Your task to perform on an android device: change the clock style Image 0: 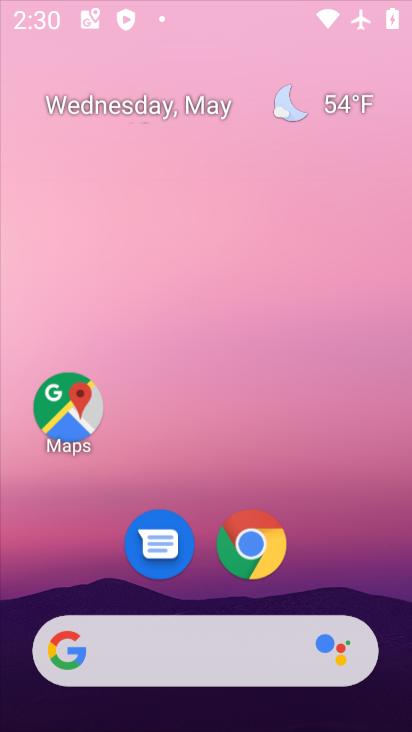
Step 0: drag from (398, 98) to (299, 291)
Your task to perform on an android device: change the clock style Image 1: 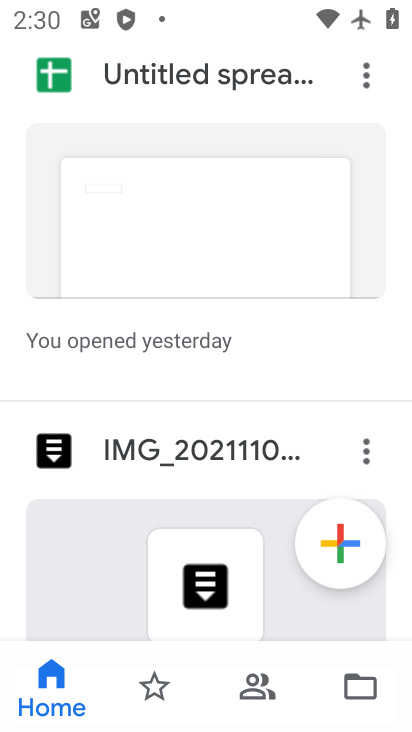
Step 1: press home button
Your task to perform on an android device: change the clock style Image 2: 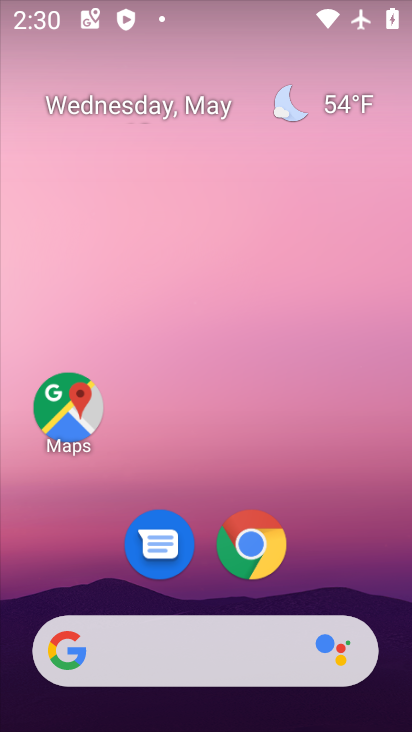
Step 2: drag from (323, 543) to (315, 103)
Your task to perform on an android device: change the clock style Image 3: 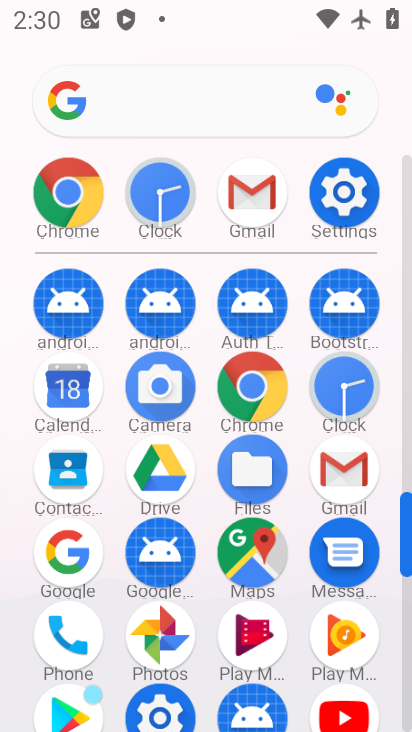
Step 3: click (346, 373)
Your task to perform on an android device: change the clock style Image 4: 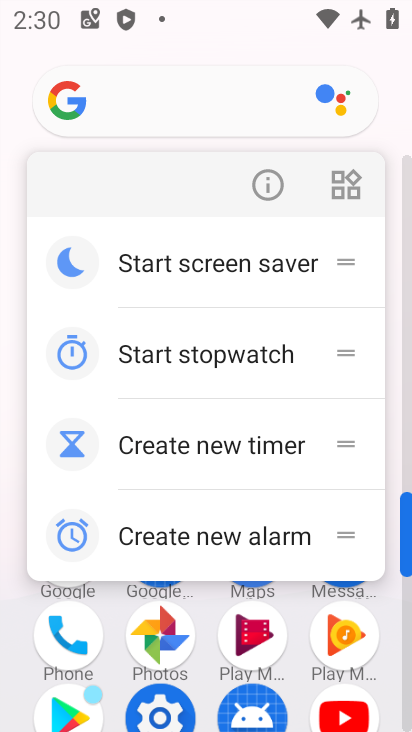
Step 4: click (15, 585)
Your task to perform on an android device: change the clock style Image 5: 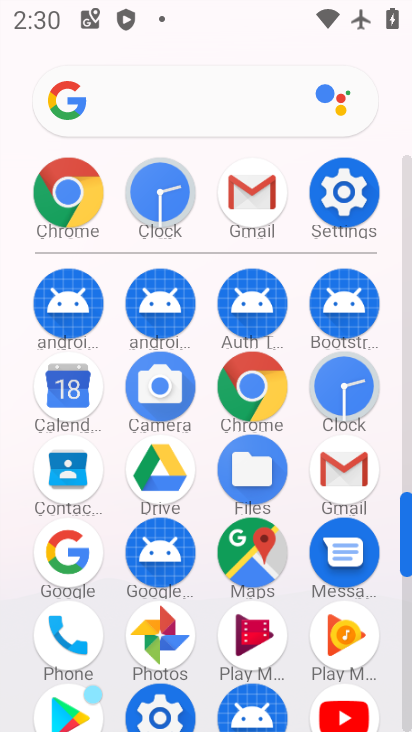
Step 5: click (346, 387)
Your task to perform on an android device: change the clock style Image 6: 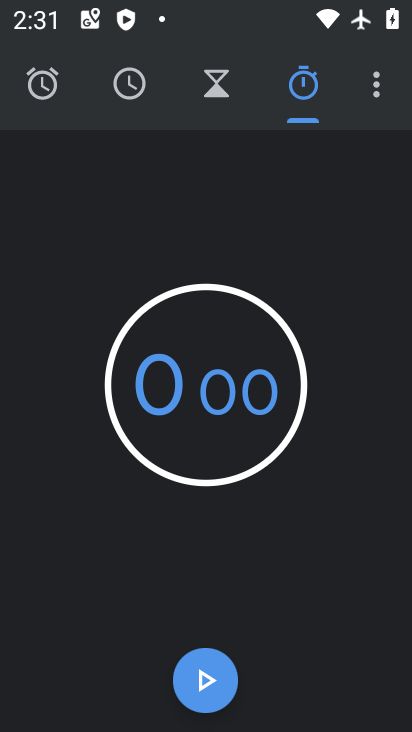
Step 6: click (381, 76)
Your task to perform on an android device: change the clock style Image 7: 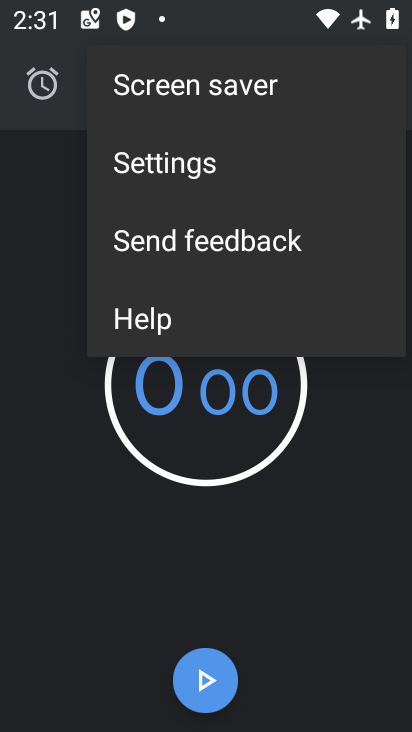
Step 7: click (305, 156)
Your task to perform on an android device: change the clock style Image 8: 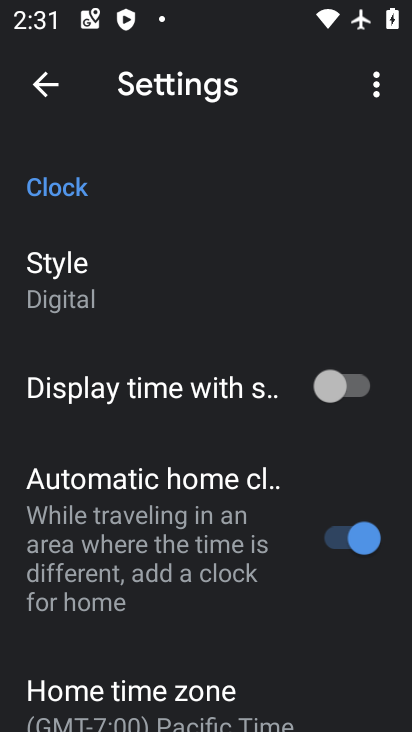
Step 8: click (164, 275)
Your task to perform on an android device: change the clock style Image 9: 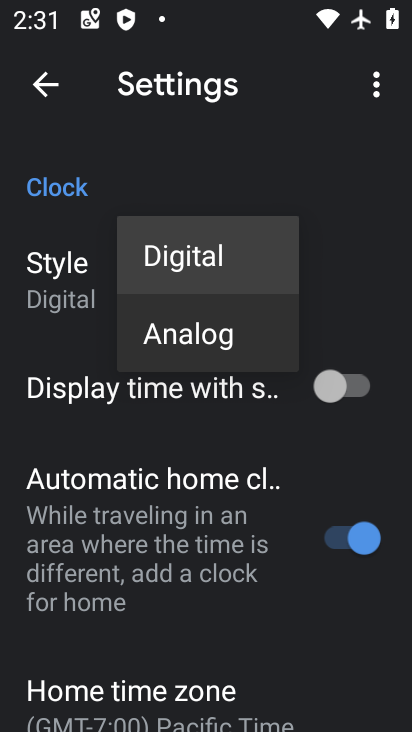
Step 9: click (144, 348)
Your task to perform on an android device: change the clock style Image 10: 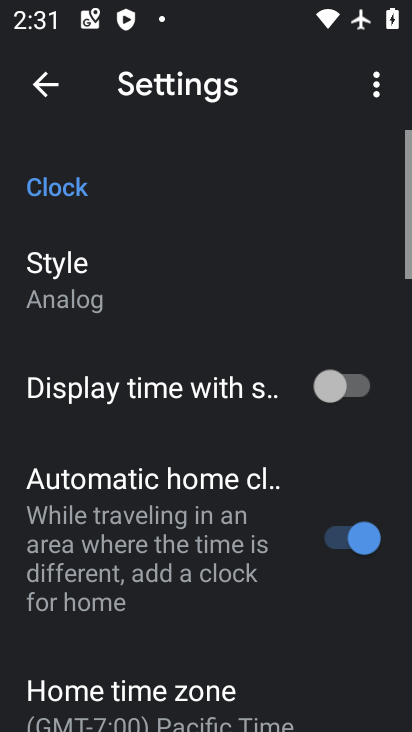
Step 10: task complete